Your task to perform on an android device: Open my contact list Image 0: 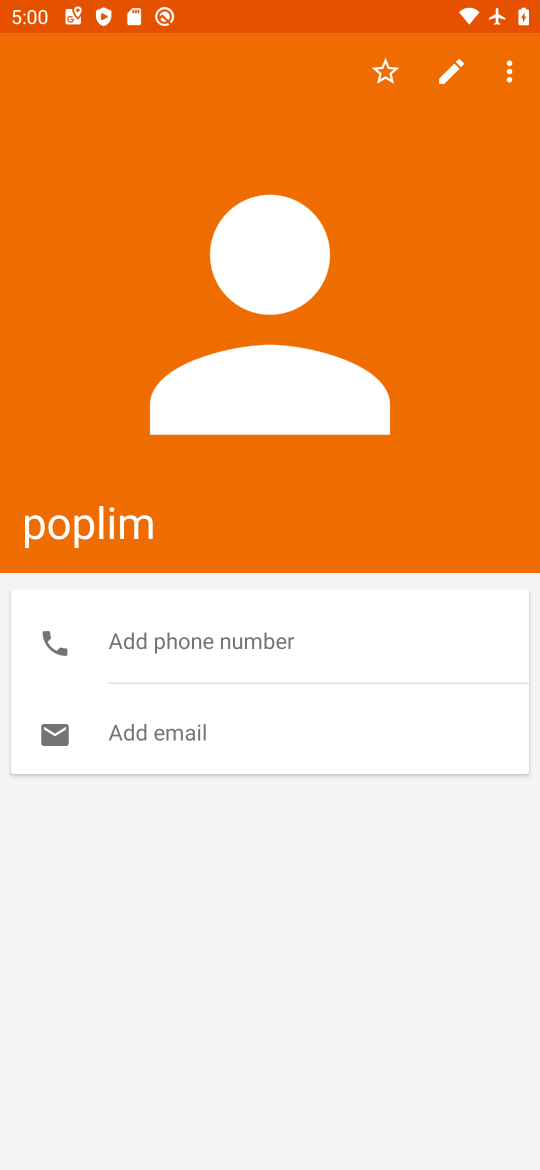
Step 0: press home button
Your task to perform on an android device: Open my contact list Image 1: 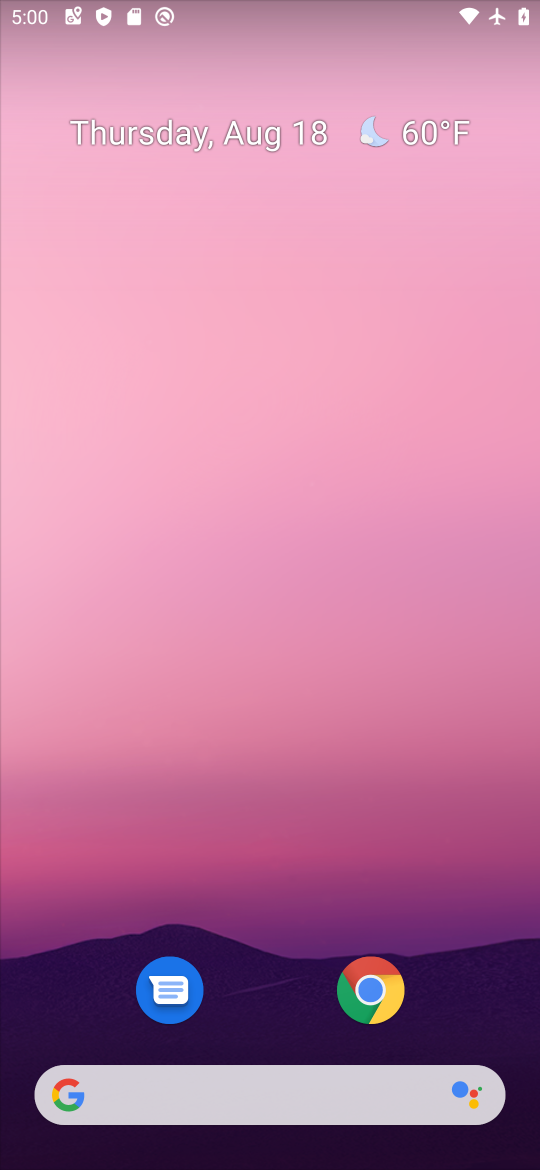
Step 1: drag from (355, 721) to (397, 60)
Your task to perform on an android device: Open my contact list Image 2: 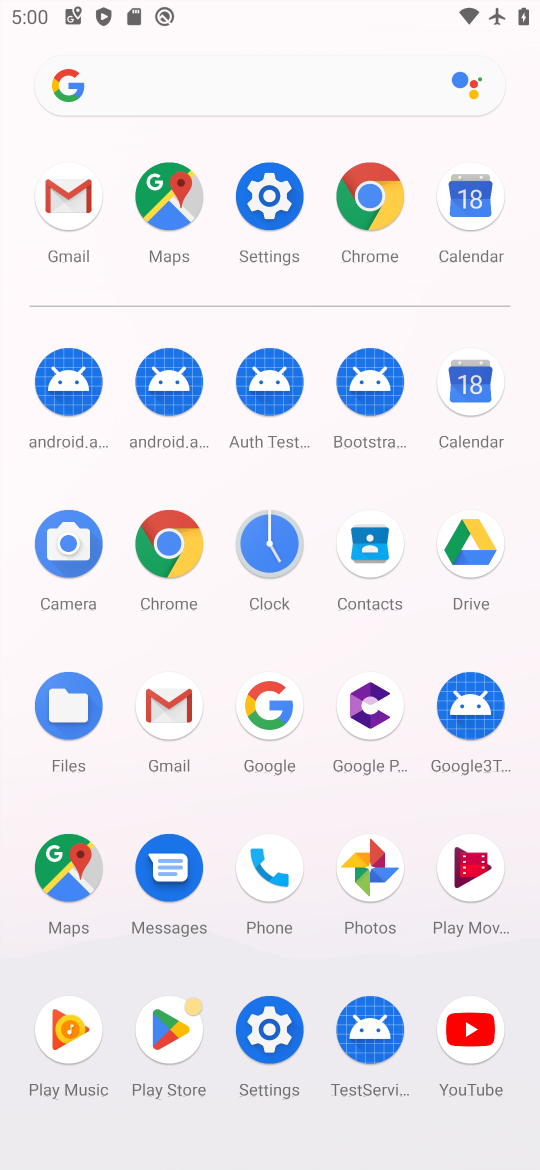
Step 2: click (355, 544)
Your task to perform on an android device: Open my contact list Image 3: 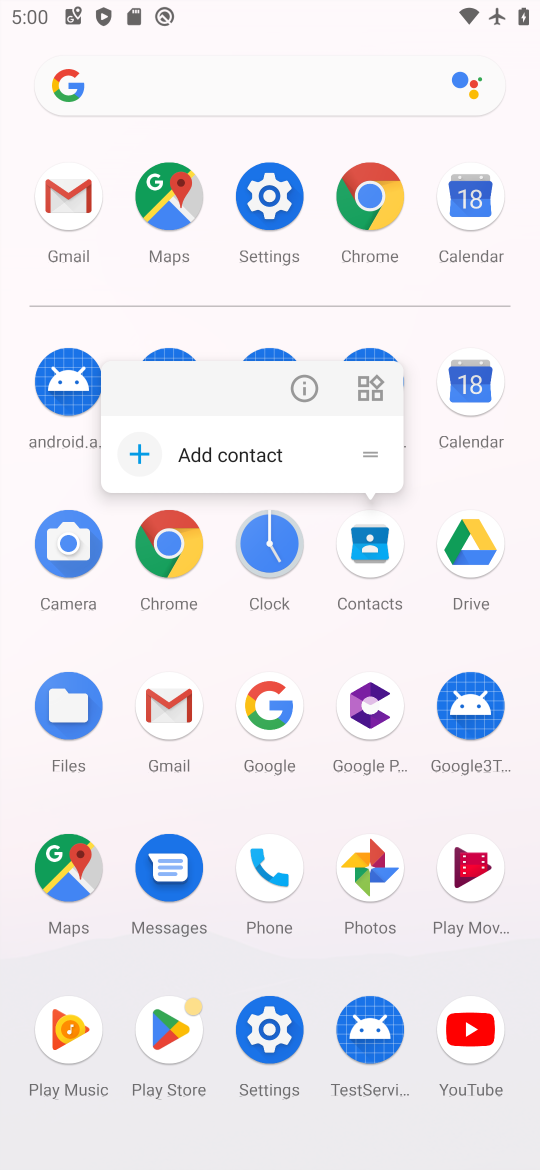
Step 3: click (400, 552)
Your task to perform on an android device: Open my contact list Image 4: 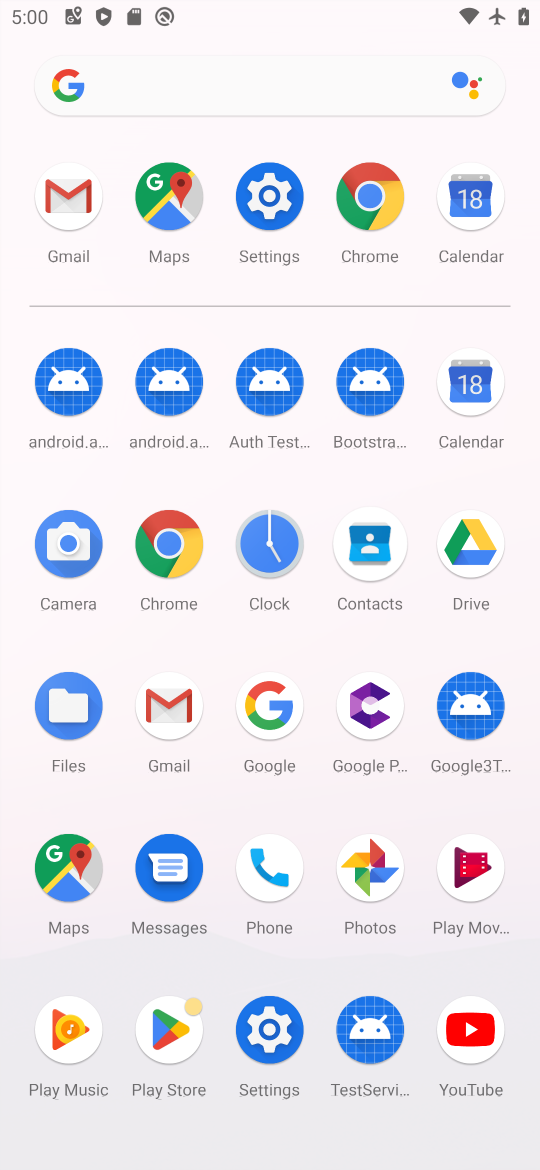
Step 4: click (384, 552)
Your task to perform on an android device: Open my contact list Image 5: 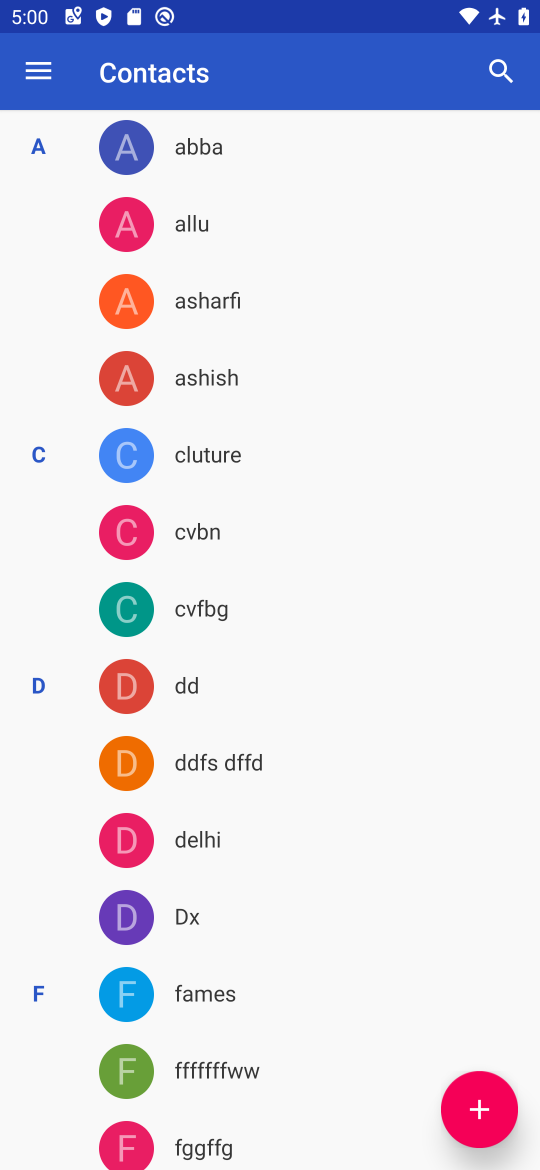
Step 5: task complete